Your task to perform on an android device: all mails in gmail Image 0: 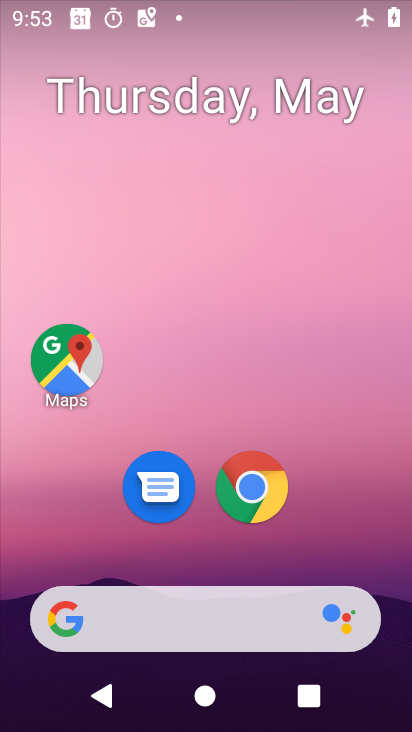
Step 0: drag from (200, 655) to (200, 134)
Your task to perform on an android device: all mails in gmail Image 1: 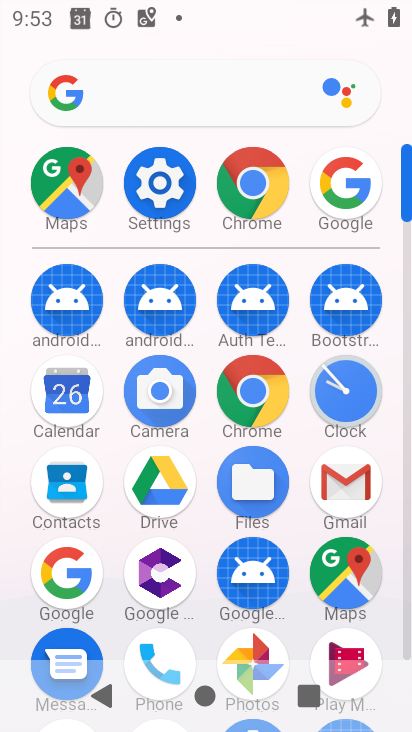
Step 1: click (341, 495)
Your task to perform on an android device: all mails in gmail Image 2: 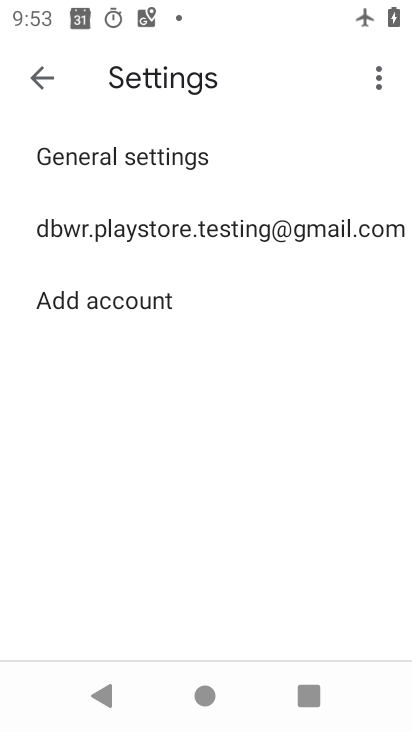
Step 2: click (33, 78)
Your task to perform on an android device: all mails in gmail Image 3: 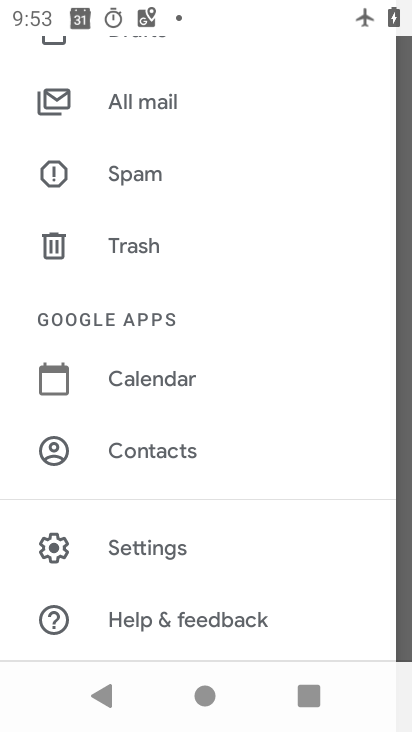
Step 3: click (143, 115)
Your task to perform on an android device: all mails in gmail Image 4: 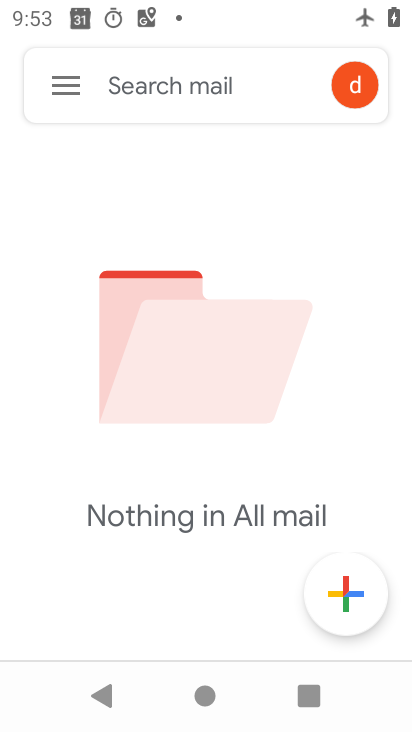
Step 4: task complete